Your task to perform on an android device: open a bookmark in the chrome app Image 0: 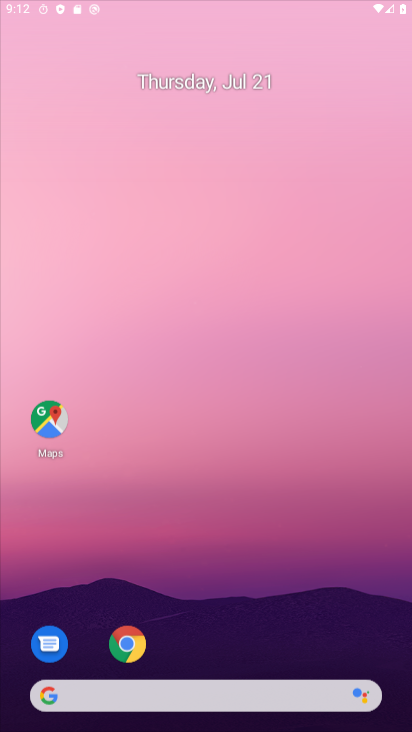
Step 0: click (286, 108)
Your task to perform on an android device: open a bookmark in the chrome app Image 1: 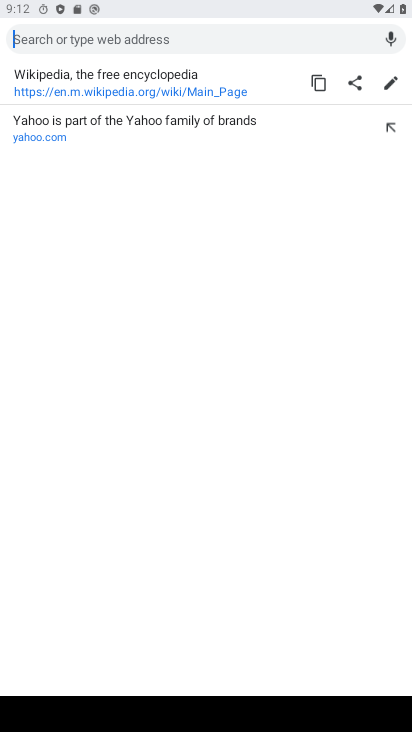
Step 1: press back button
Your task to perform on an android device: open a bookmark in the chrome app Image 2: 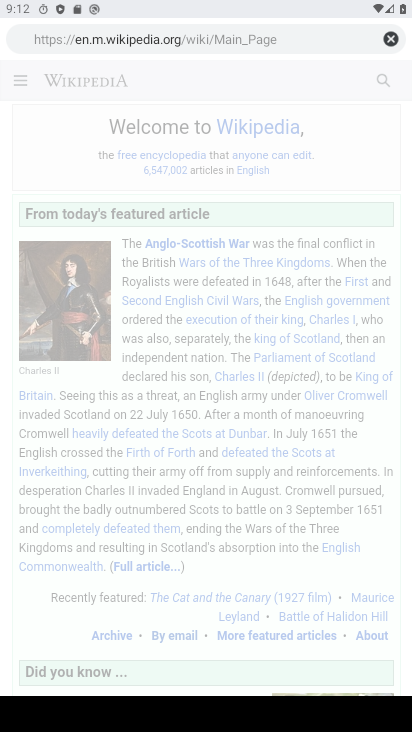
Step 2: press back button
Your task to perform on an android device: open a bookmark in the chrome app Image 3: 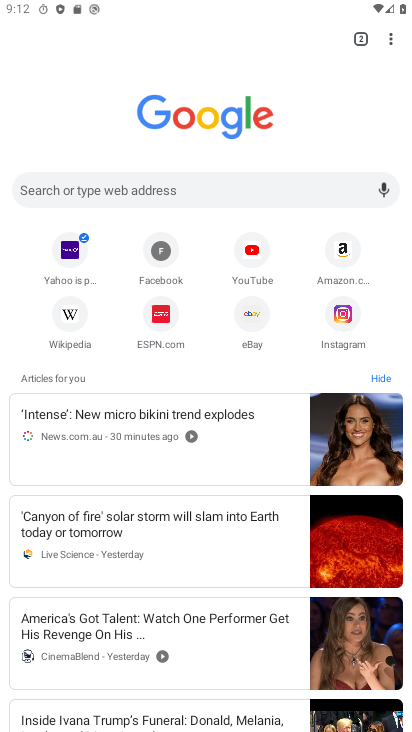
Step 3: drag from (396, 42) to (243, 151)
Your task to perform on an android device: open a bookmark in the chrome app Image 4: 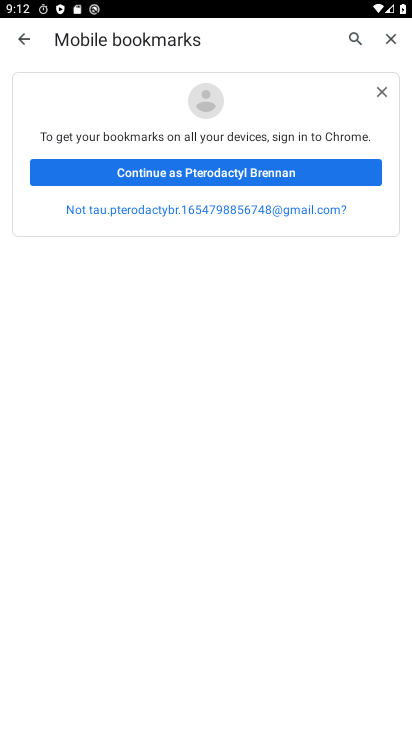
Step 4: click (378, 93)
Your task to perform on an android device: open a bookmark in the chrome app Image 5: 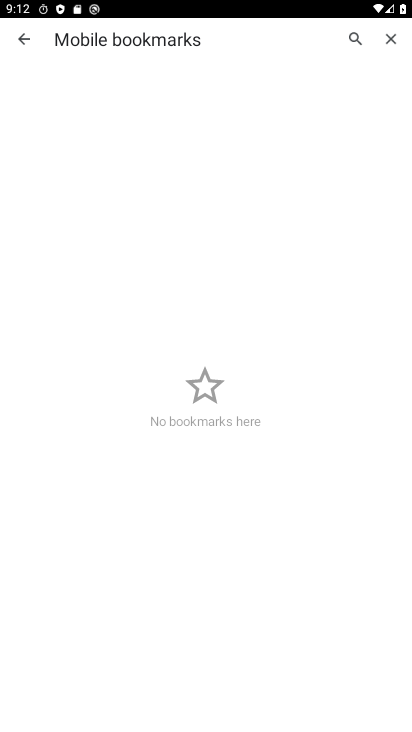
Step 5: task complete